Your task to perform on an android device: set the timer Image 0: 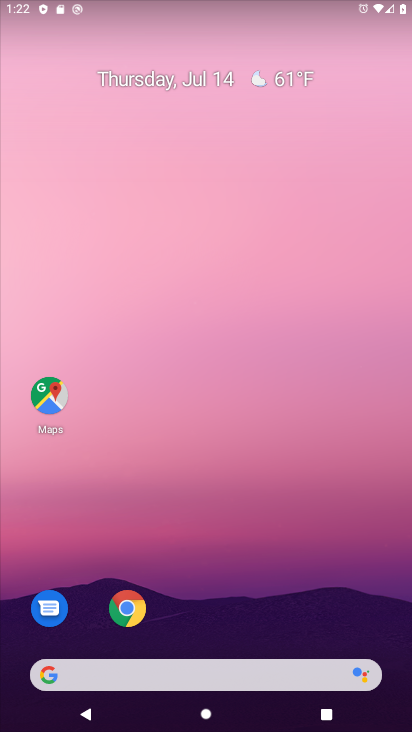
Step 0: drag from (152, 654) to (199, 163)
Your task to perform on an android device: set the timer Image 1: 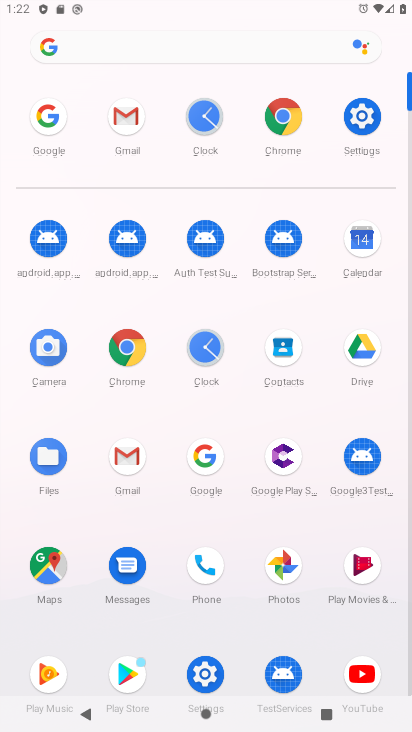
Step 1: click (206, 119)
Your task to perform on an android device: set the timer Image 2: 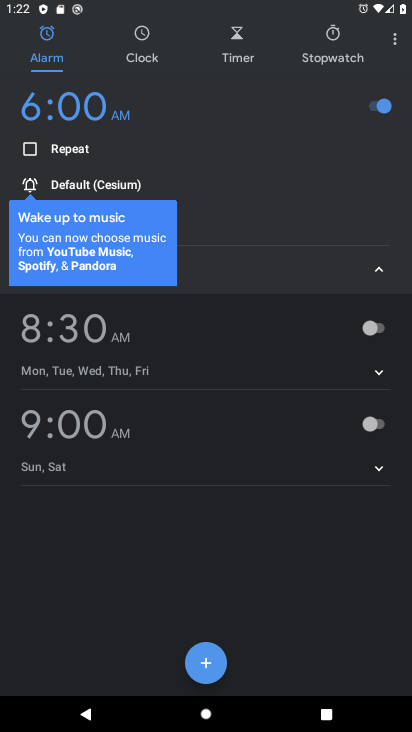
Step 2: click (226, 48)
Your task to perform on an android device: set the timer Image 3: 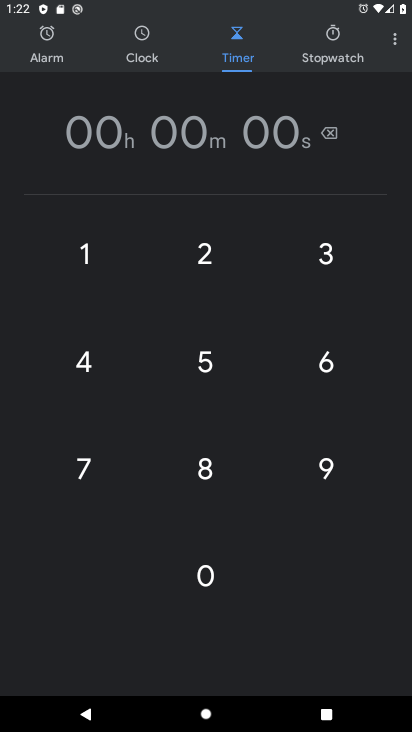
Step 3: click (214, 577)
Your task to perform on an android device: set the timer Image 4: 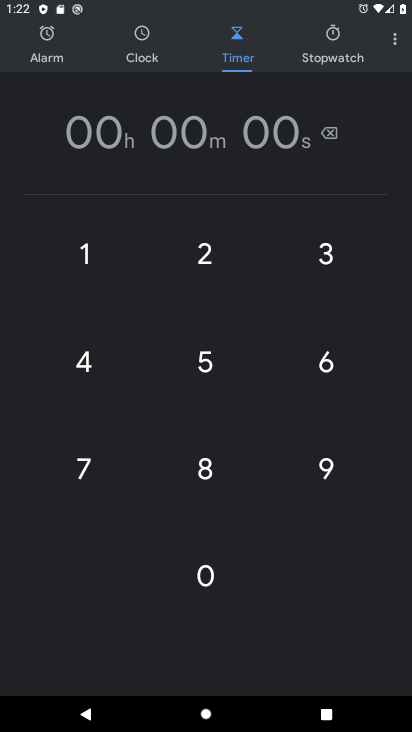
Step 4: click (205, 473)
Your task to perform on an android device: set the timer Image 5: 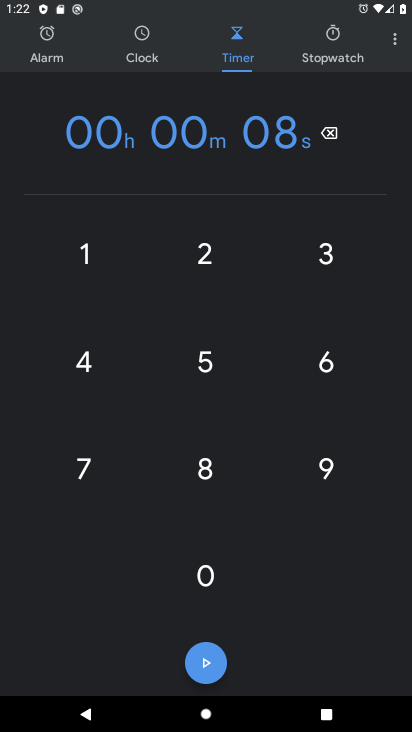
Step 5: click (214, 576)
Your task to perform on an android device: set the timer Image 6: 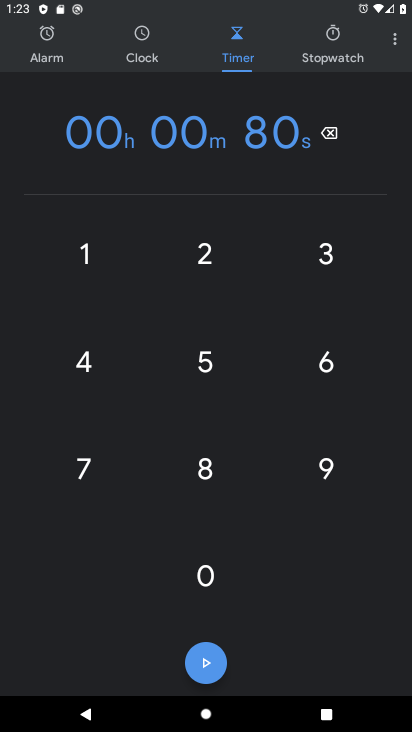
Step 6: click (214, 576)
Your task to perform on an android device: set the timer Image 7: 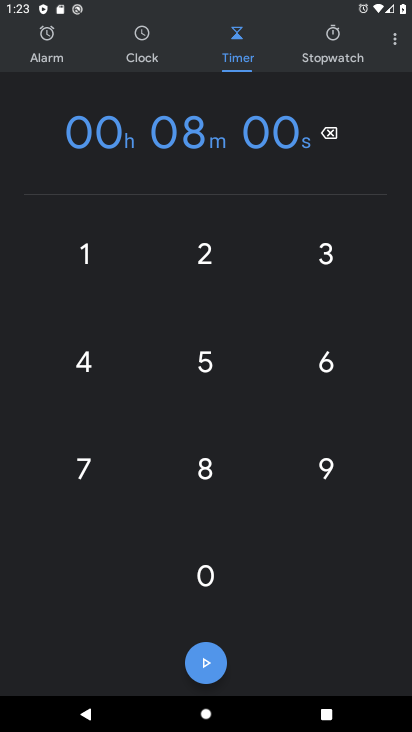
Step 7: click (203, 666)
Your task to perform on an android device: set the timer Image 8: 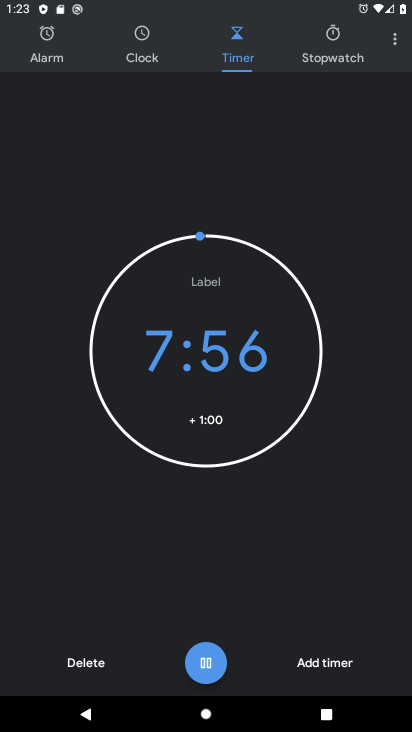
Step 8: task complete